Your task to perform on an android device: What's the weather going to be tomorrow? Image 0: 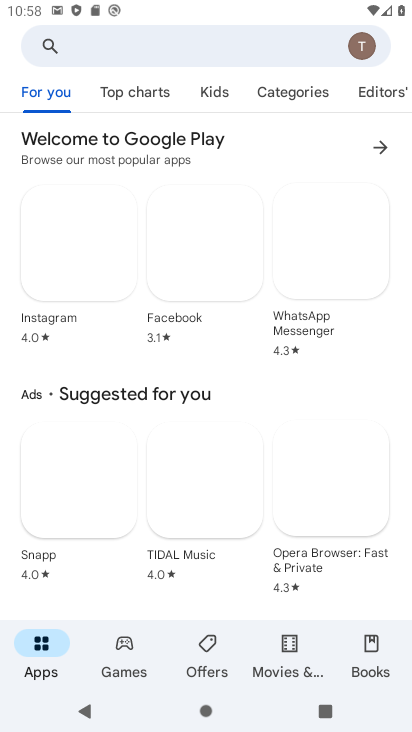
Step 0: drag from (221, 629) to (190, 210)
Your task to perform on an android device: What's the weather going to be tomorrow? Image 1: 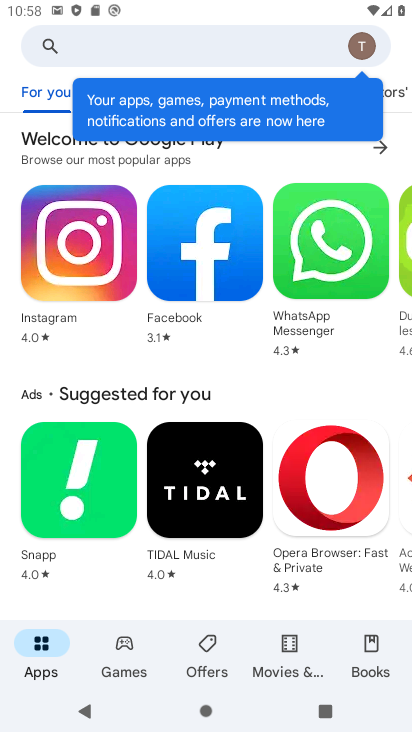
Step 1: press home button
Your task to perform on an android device: What's the weather going to be tomorrow? Image 2: 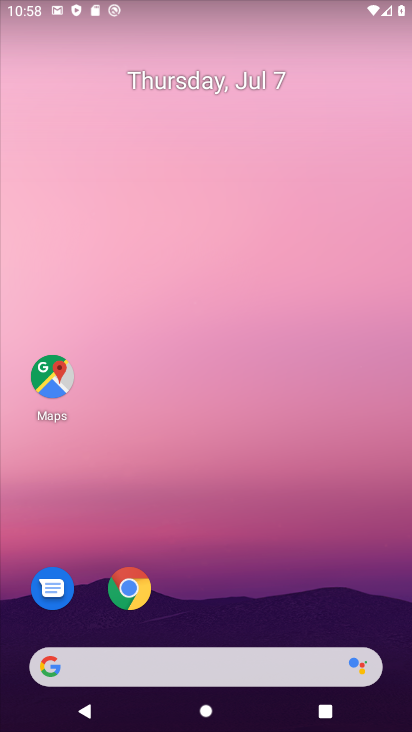
Step 2: drag from (222, 636) to (209, 85)
Your task to perform on an android device: What's the weather going to be tomorrow? Image 3: 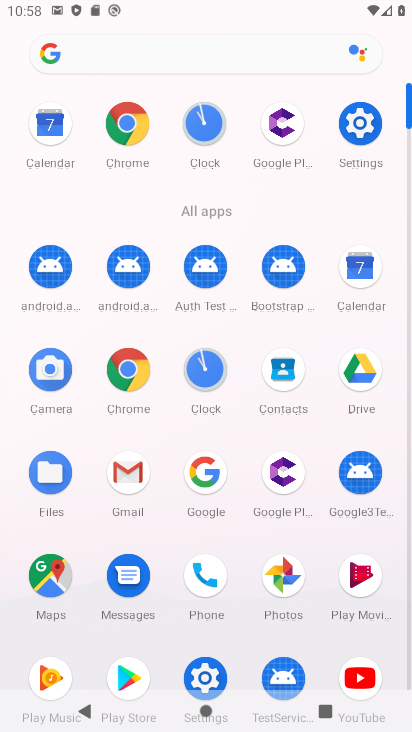
Step 3: click (200, 472)
Your task to perform on an android device: What's the weather going to be tomorrow? Image 4: 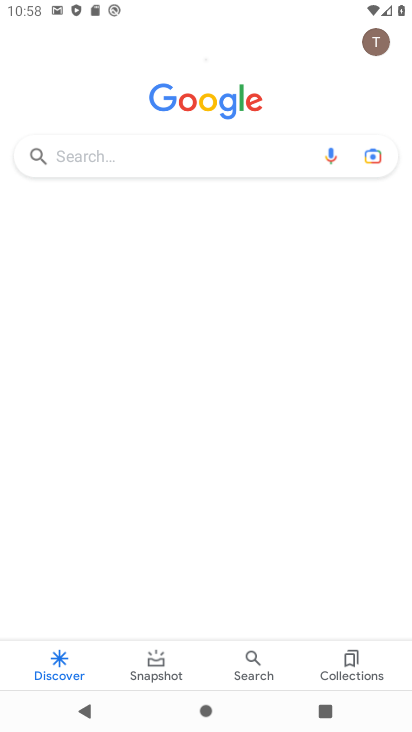
Step 4: click (167, 152)
Your task to perform on an android device: What's the weather going to be tomorrow? Image 5: 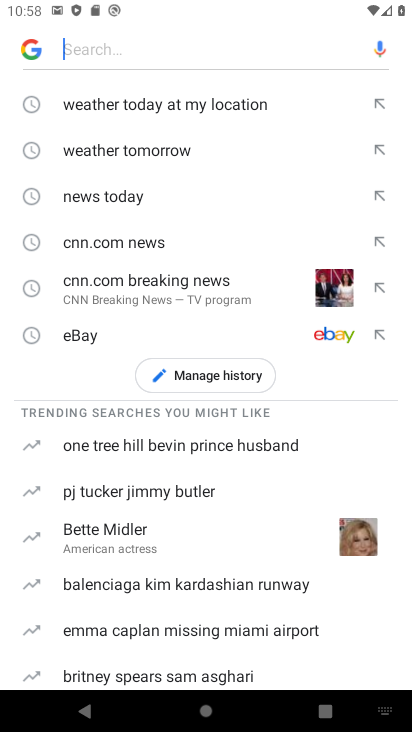
Step 5: click (120, 94)
Your task to perform on an android device: What's the weather going to be tomorrow? Image 6: 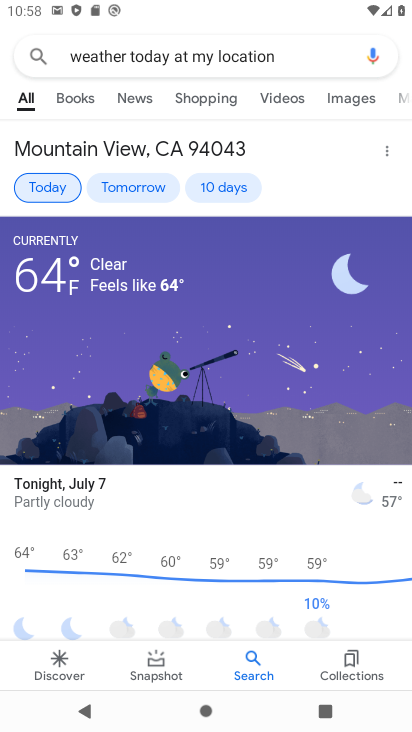
Step 6: click (149, 175)
Your task to perform on an android device: What's the weather going to be tomorrow? Image 7: 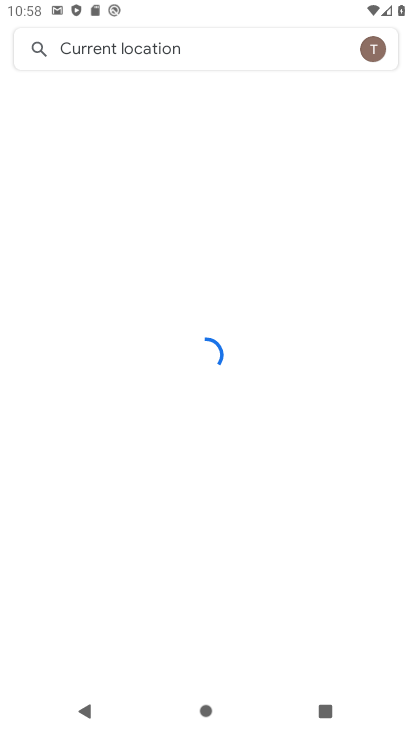
Step 7: click (155, 181)
Your task to perform on an android device: What's the weather going to be tomorrow? Image 8: 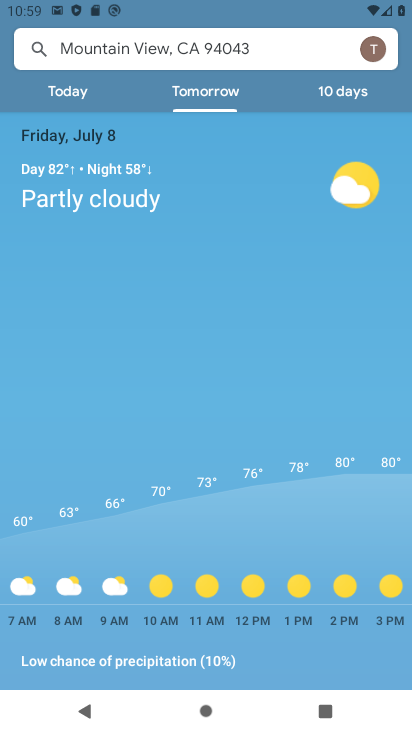
Step 8: task complete